Your task to perform on an android device: Open Google Chrome Image 0: 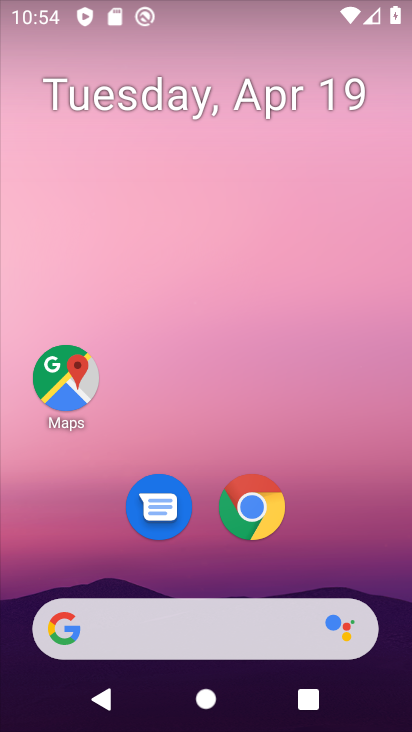
Step 0: drag from (226, 519) to (209, 193)
Your task to perform on an android device: Open Google Chrome Image 1: 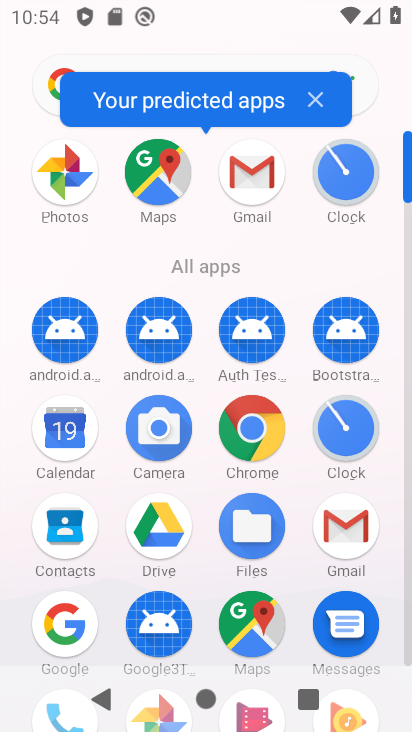
Step 1: click (259, 429)
Your task to perform on an android device: Open Google Chrome Image 2: 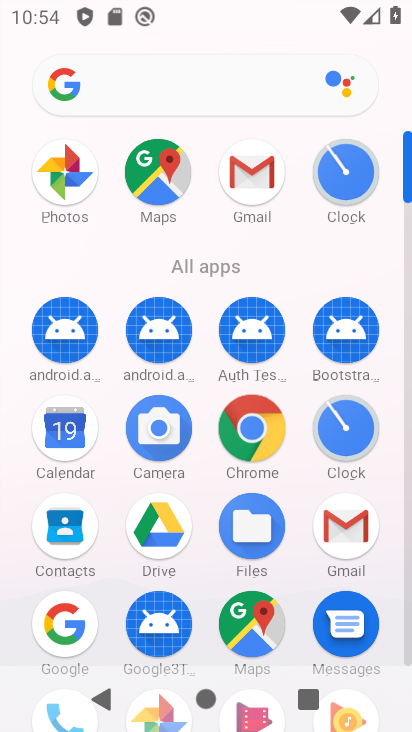
Step 2: click (259, 429)
Your task to perform on an android device: Open Google Chrome Image 3: 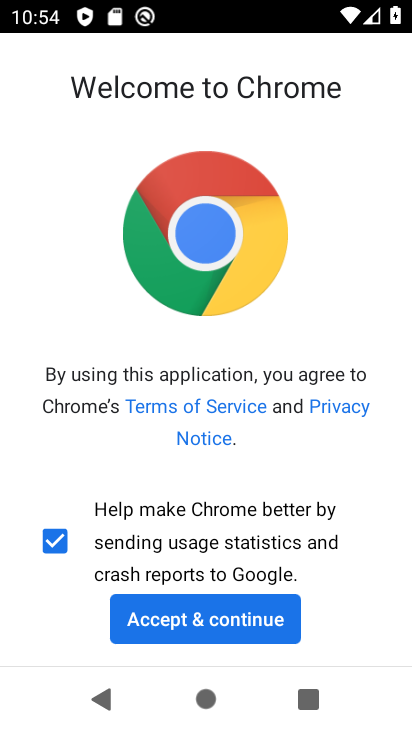
Step 3: click (215, 613)
Your task to perform on an android device: Open Google Chrome Image 4: 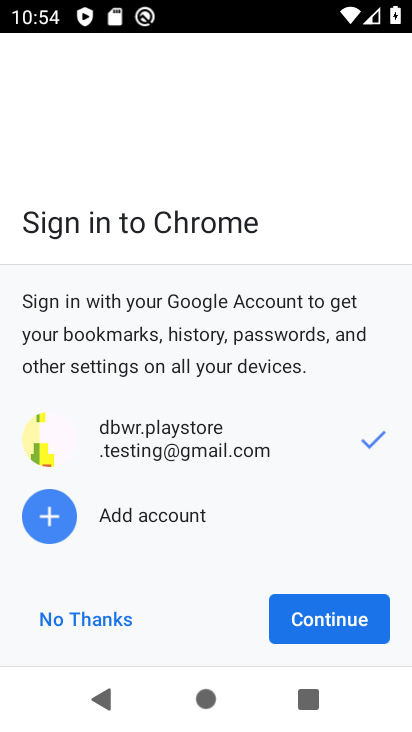
Step 4: click (315, 611)
Your task to perform on an android device: Open Google Chrome Image 5: 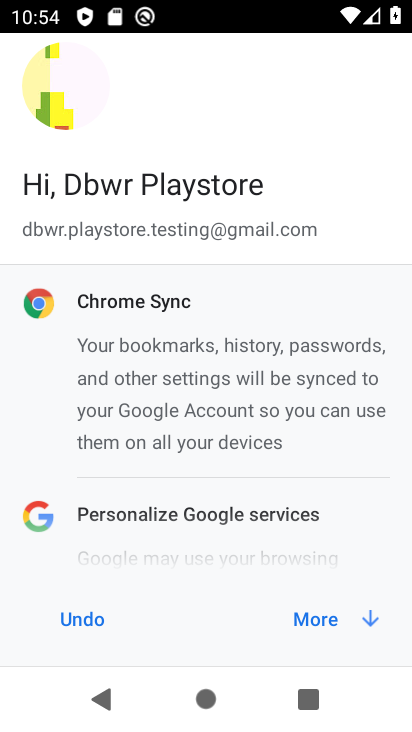
Step 5: click (315, 611)
Your task to perform on an android device: Open Google Chrome Image 6: 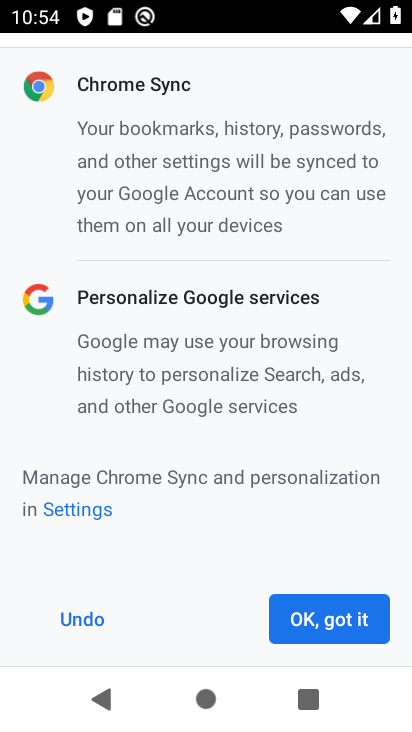
Step 6: click (315, 611)
Your task to perform on an android device: Open Google Chrome Image 7: 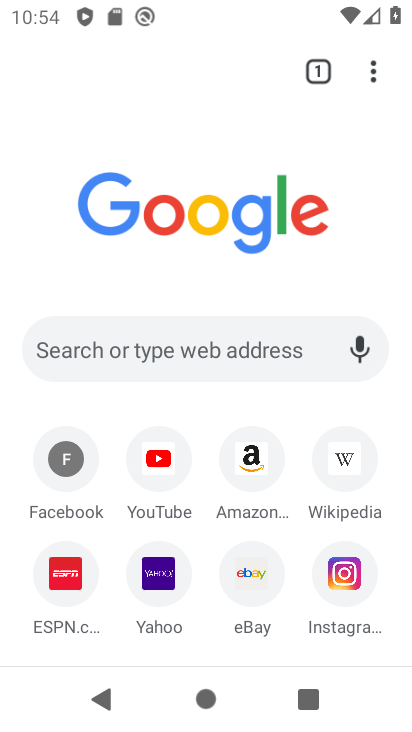
Step 7: task complete